Your task to perform on an android device: What's the weather today? Image 0: 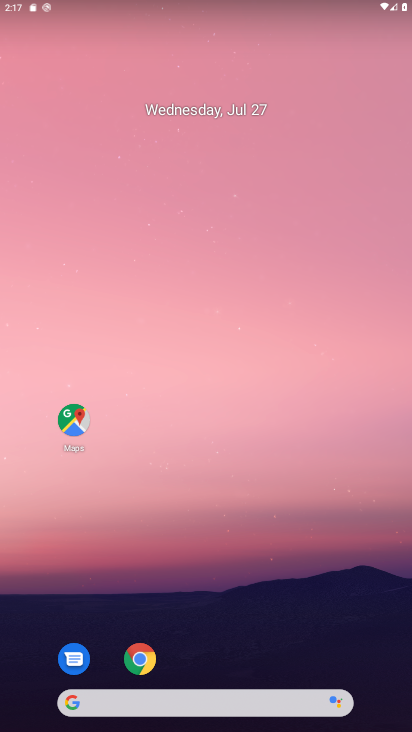
Step 0: drag from (256, 664) to (293, 56)
Your task to perform on an android device: What's the weather today? Image 1: 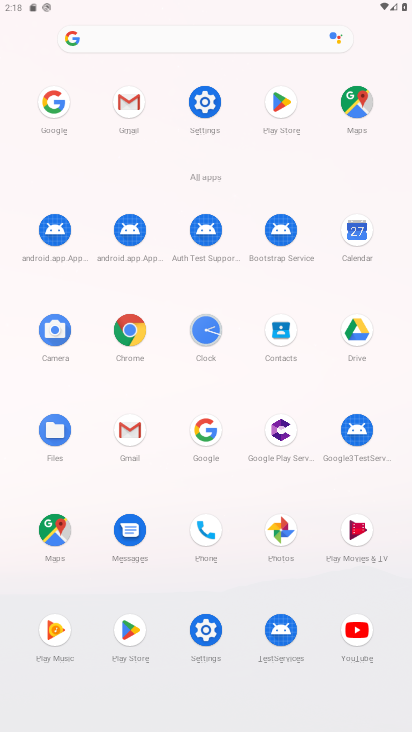
Step 1: click (199, 433)
Your task to perform on an android device: What's the weather today? Image 2: 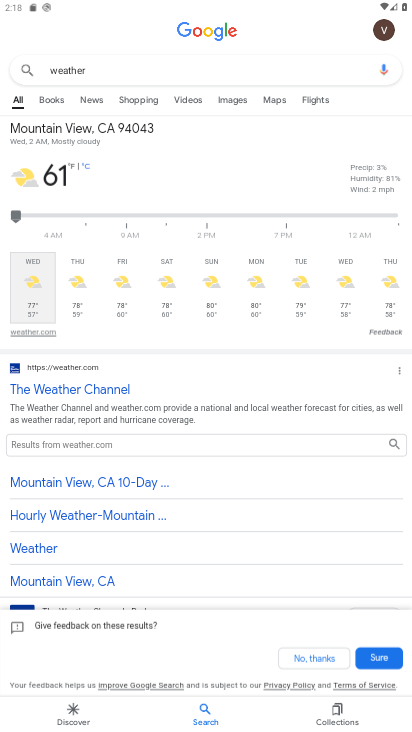
Step 2: task complete